Your task to perform on an android device: turn off picture-in-picture Image 0: 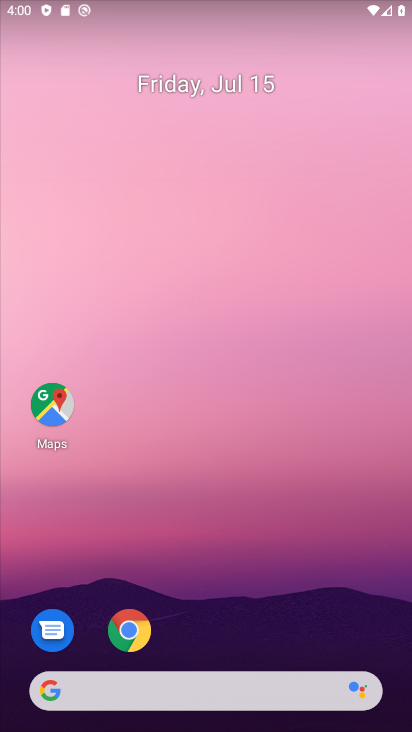
Step 0: drag from (214, 664) to (230, 100)
Your task to perform on an android device: turn off picture-in-picture Image 1: 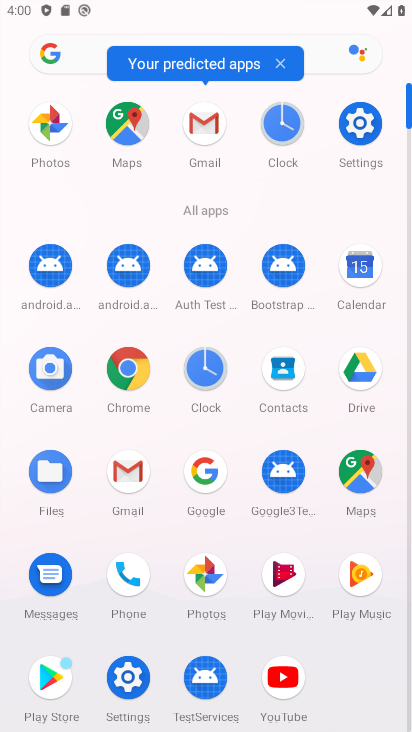
Step 1: click (126, 668)
Your task to perform on an android device: turn off picture-in-picture Image 2: 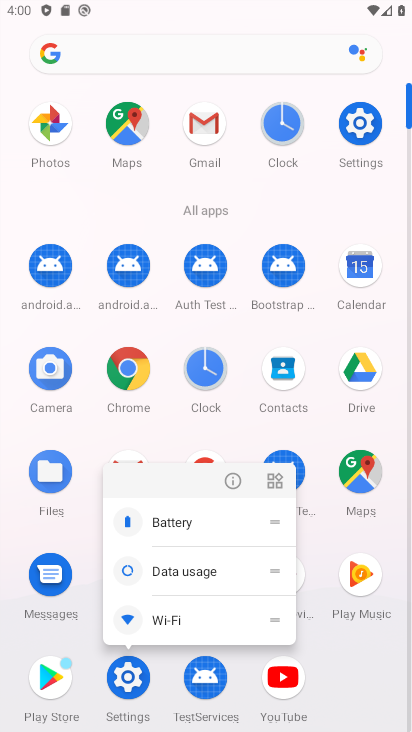
Step 2: click (134, 669)
Your task to perform on an android device: turn off picture-in-picture Image 3: 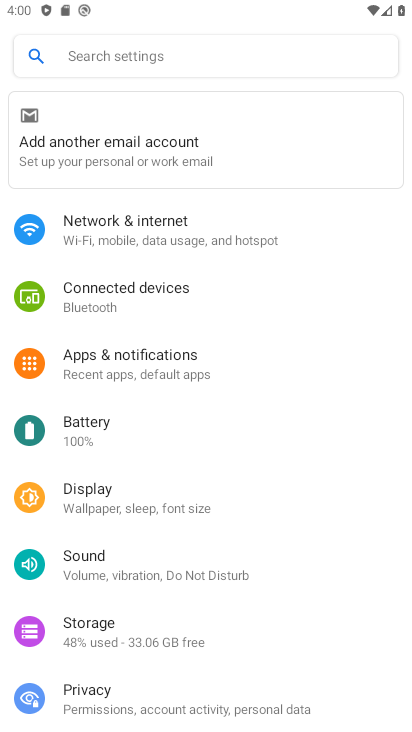
Step 3: click (97, 366)
Your task to perform on an android device: turn off picture-in-picture Image 4: 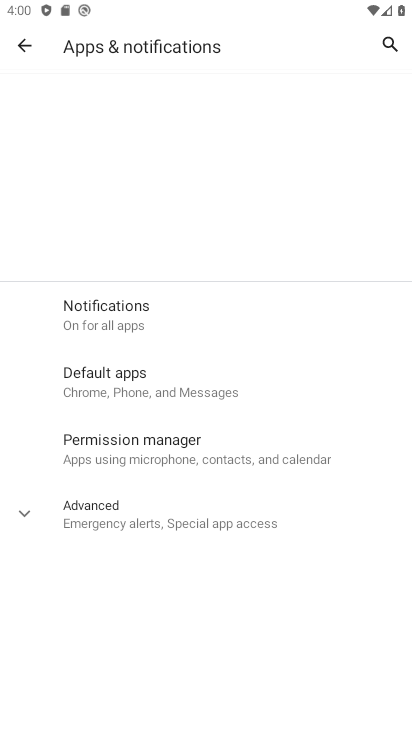
Step 4: click (138, 504)
Your task to perform on an android device: turn off picture-in-picture Image 5: 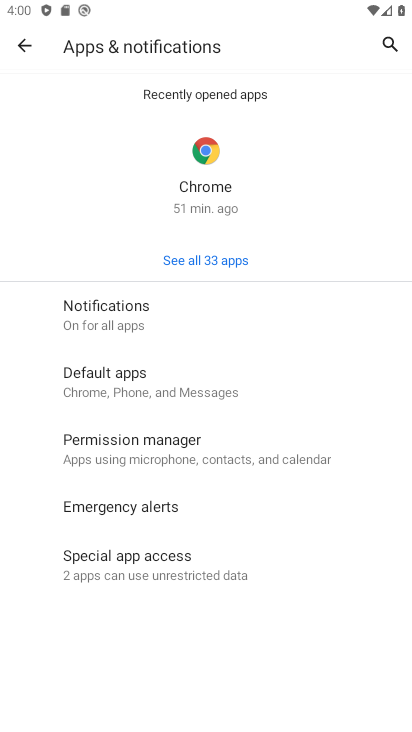
Step 5: click (164, 553)
Your task to perform on an android device: turn off picture-in-picture Image 6: 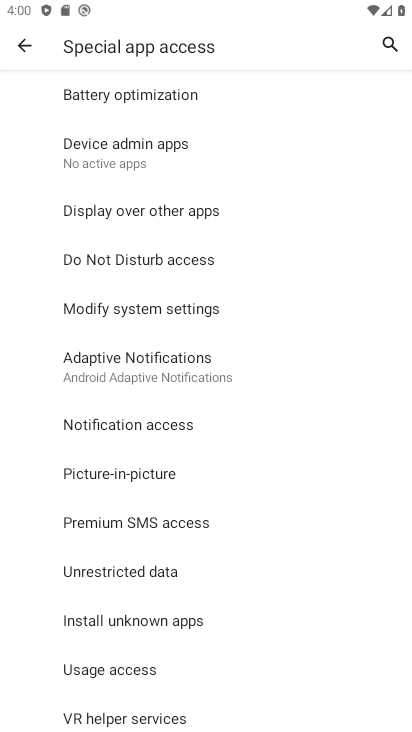
Step 6: click (156, 480)
Your task to perform on an android device: turn off picture-in-picture Image 7: 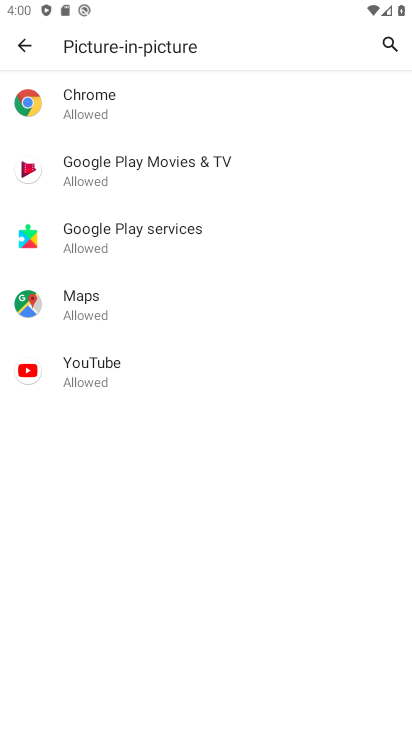
Step 7: click (262, 95)
Your task to perform on an android device: turn off picture-in-picture Image 8: 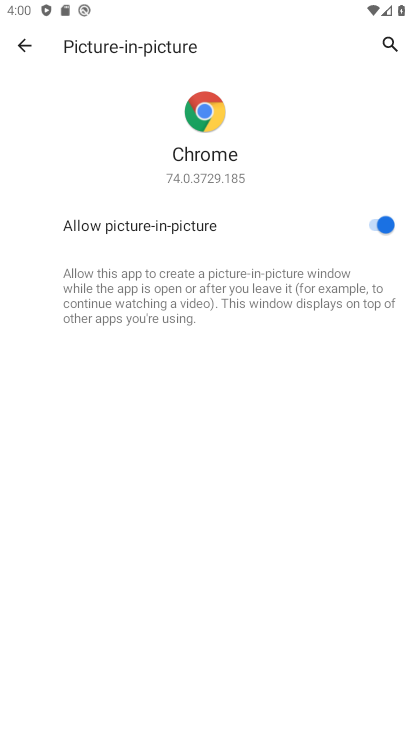
Step 8: click (374, 221)
Your task to perform on an android device: turn off picture-in-picture Image 9: 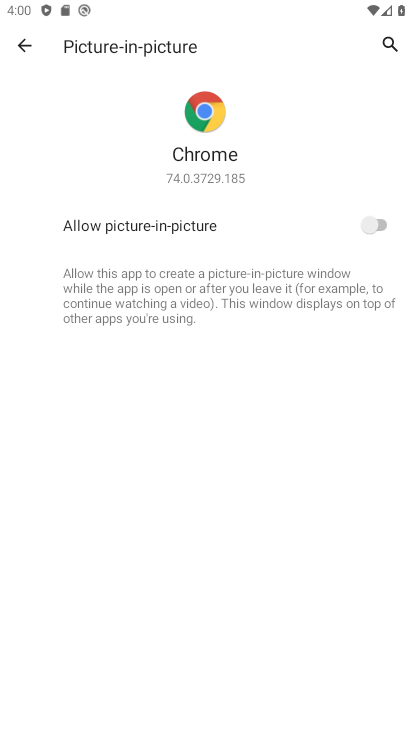
Step 9: press back button
Your task to perform on an android device: turn off picture-in-picture Image 10: 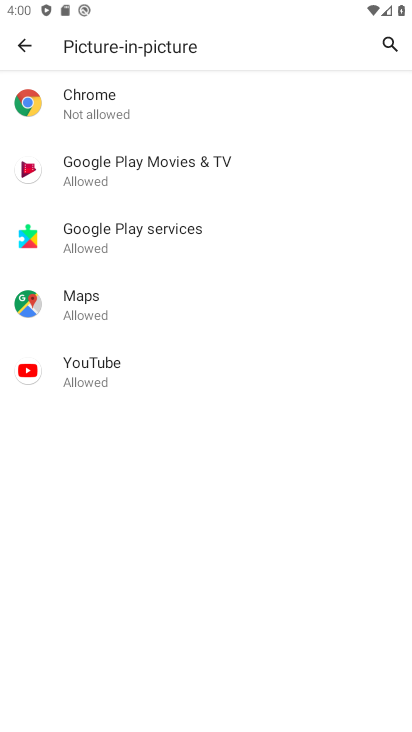
Step 10: click (169, 174)
Your task to perform on an android device: turn off picture-in-picture Image 11: 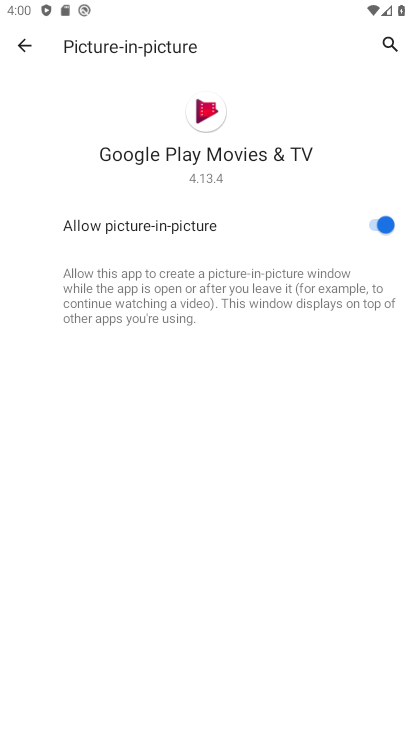
Step 11: click (367, 221)
Your task to perform on an android device: turn off picture-in-picture Image 12: 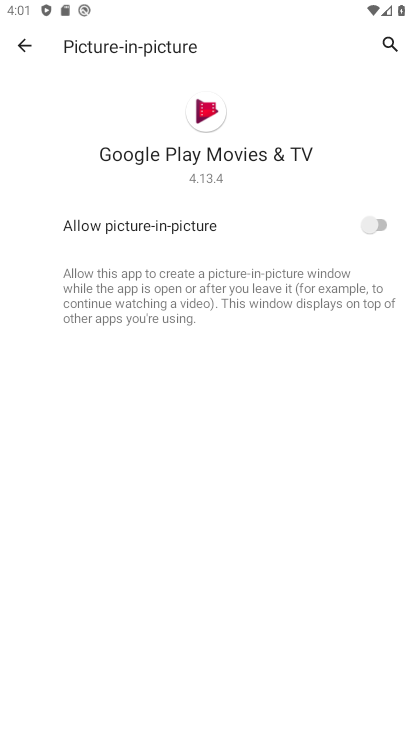
Step 12: press back button
Your task to perform on an android device: turn off picture-in-picture Image 13: 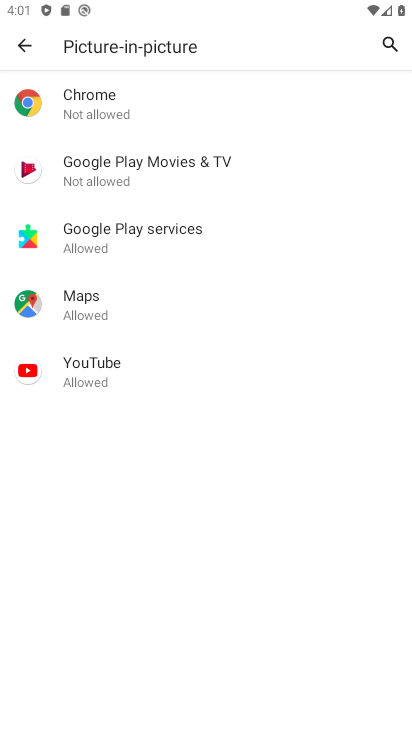
Step 13: click (155, 240)
Your task to perform on an android device: turn off picture-in-picture Image 14: 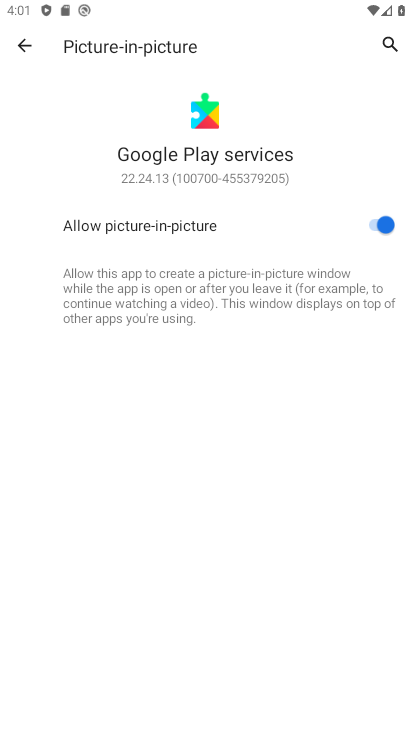
Step 14: click (368, 221)
Your task to perform on an android device: turn off picture-in-picture Image 15: 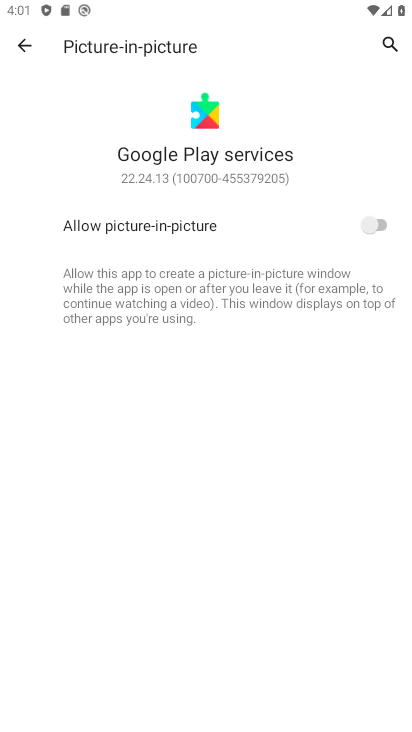
Step 15: press back button
Your task to perform on an android device: turn off picture-in-picture Image 16: 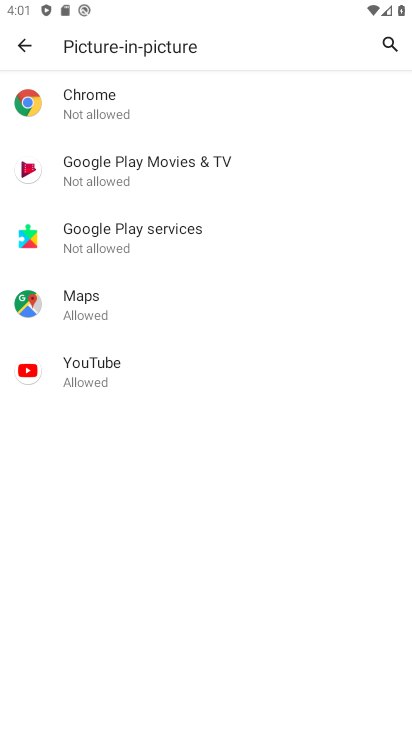
Step 16: click (169, 313)
Your task to perform on an android device: turn off picture-in-picture Image 17: 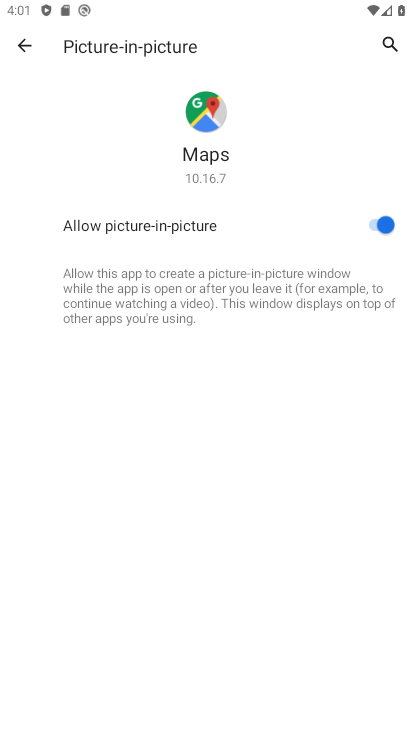
Step 17: click (372, 230)
Your task to perform on an android device: turn off picture-in-picture Image 18: 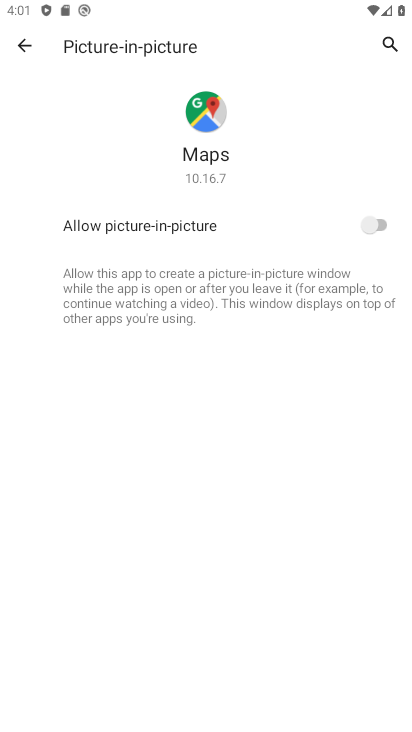
Step 18: press back button
Your task to perform on an android device: turn off picture-in-picture Image 19: 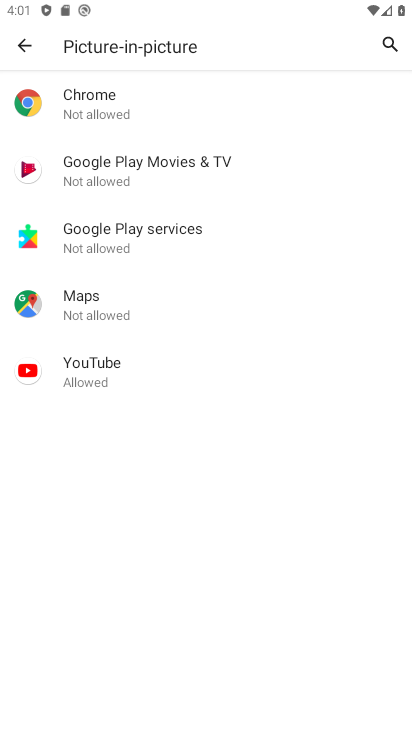
Step 19: click (80, 359)
Your task to perform on an android device: turn off picture-in-picture Image 20: 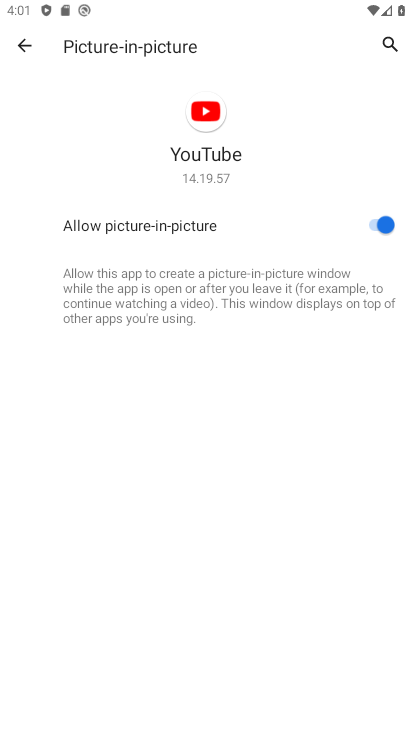
Step 20: click (371, 224)
Your task to perform on an android device: turn off picture-in-picture Image 21: 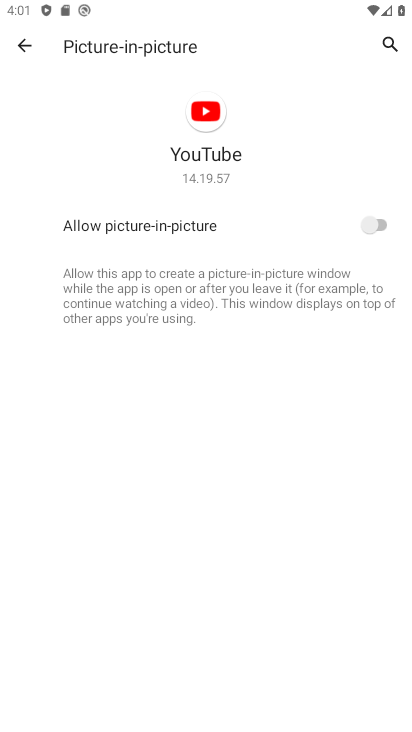
Step 21: task complete